Your task to perform on an android device: install app "Chime – Mobile Banking" Image 0: 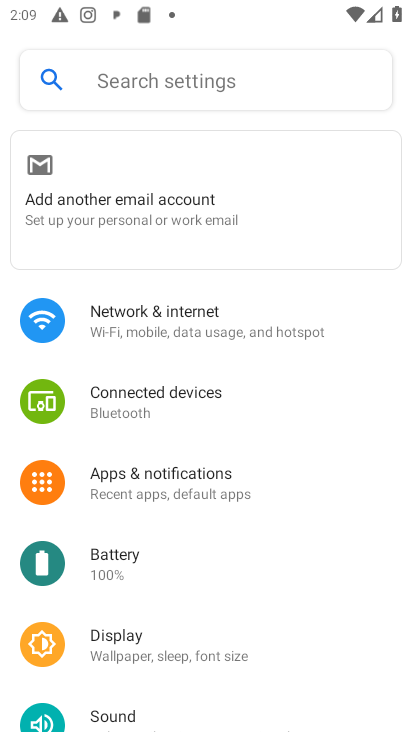
Step 0: press home button
Your task to perform on an android device: install app "Chime – Mobile Banking" Image 1: 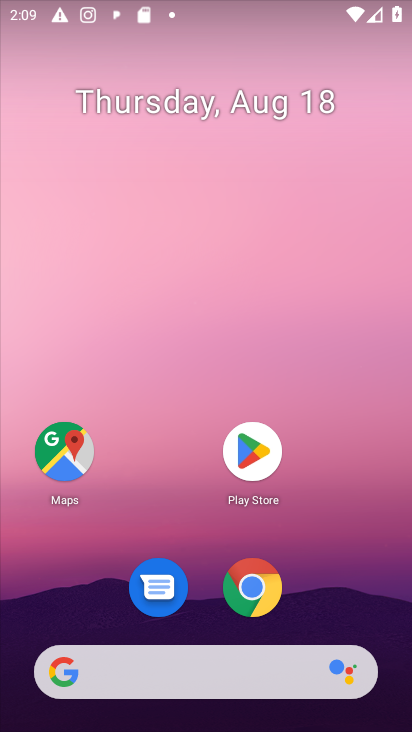
Step 1: click (256, 447)
Your task to perform on an android device: install app "Chime – Mobile Banking" Image 2: 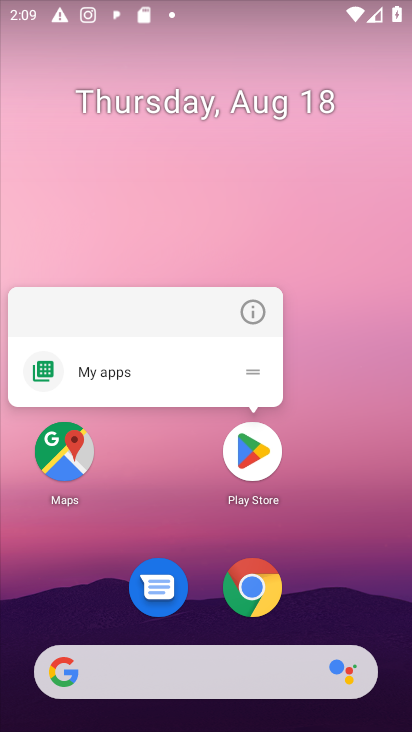
Step 2: click (256, 446)
Your task to perform on an android device: install app "Chime – Mobile Banking" Image 3: 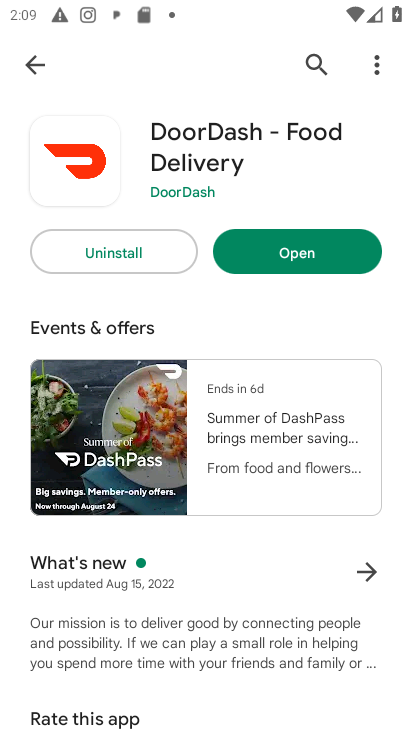
Step 3: click (305, 59)
Your task to perform on an android device: install app "Chime – Mobile Banking" Image 4: 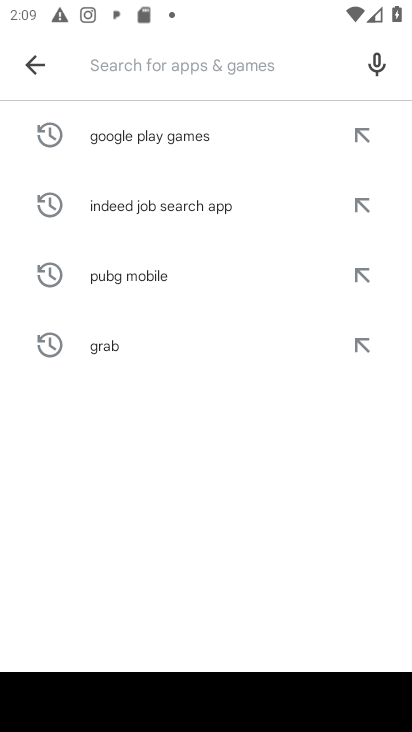
Step 4: type "Chime Mobile Banking"
Your task to perform on an android device: install app "Chime – Mobile Banking" Image 5: 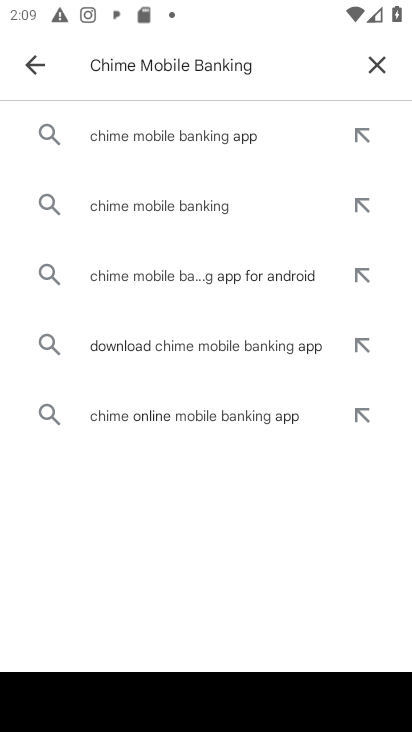
Step 5: click (186, 139)
Your task to perform on an android device: install app "Chime – Mobile Banking" Image 6: 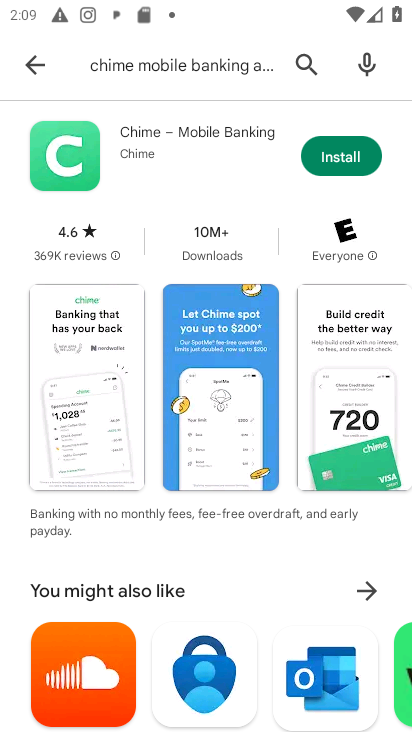
Step 6: click (348, 158)
Your task to perform on an android device: install app "Chime – Mobile Banking" Image 7: 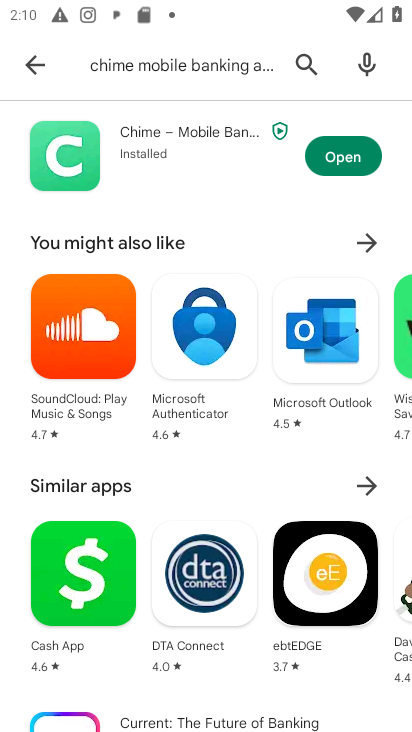
Step 7: task complete